Your task to perform on an android device: remove spam from my inbox in the gmail app Image 0: 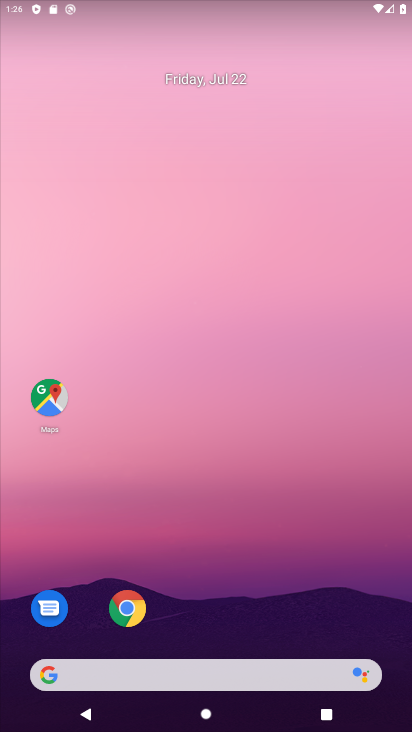
Step 0: click (53, 400)
Your task to perform on an android device: remove spam from my inbox in the gmail app Image 1: 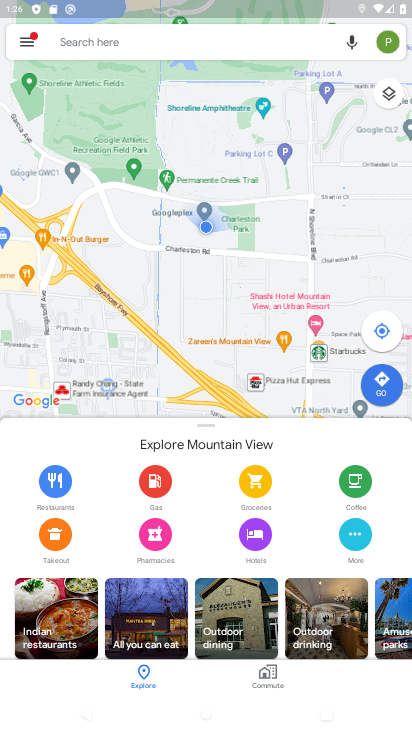
Step 1: click (25, 37)
Your task to perform on an android device: remove spam from my inbox in the gmail app Image 2: 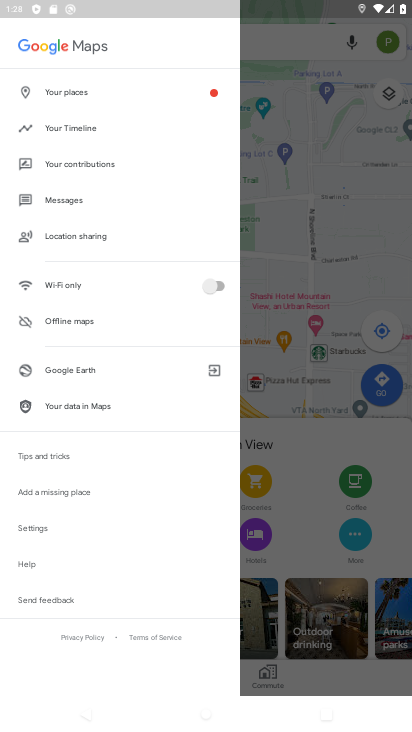
Step 2: task complete